Your task to perform on an android device: open a bookmark in the chrome app Image 0: 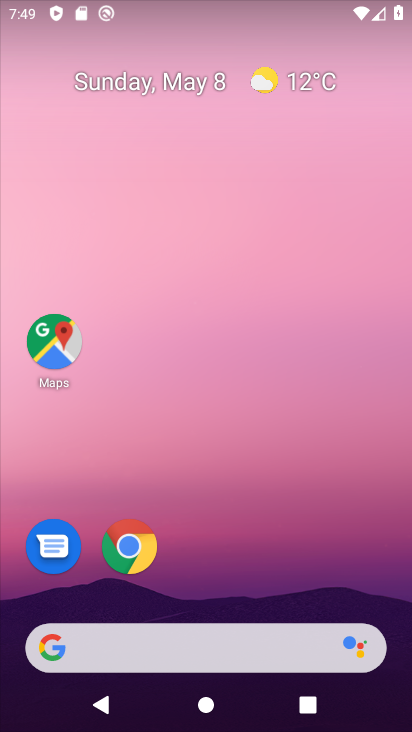
Step 0: click (134, 545)
Your task to perform on an android device: open a bookmark in the chrome app Image 1: 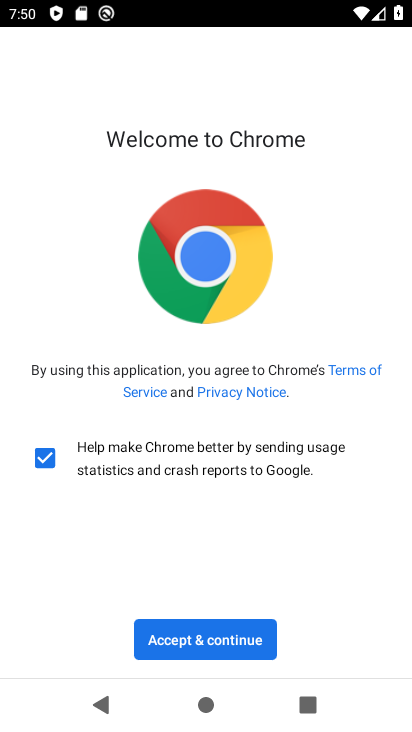
Step 1: click (209, 639)
Your task to perform on an android device: open a bookmark in the chrome app Image 2: 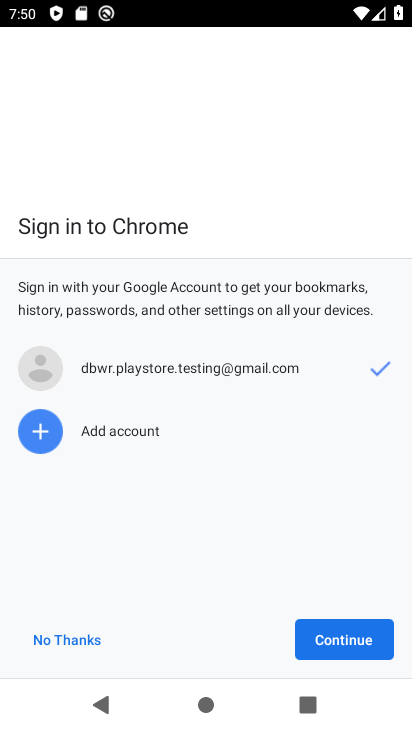
Step 2: click (306, 639)
Your task to perform on an android device: open a bookmark in the chrome app Image 3: 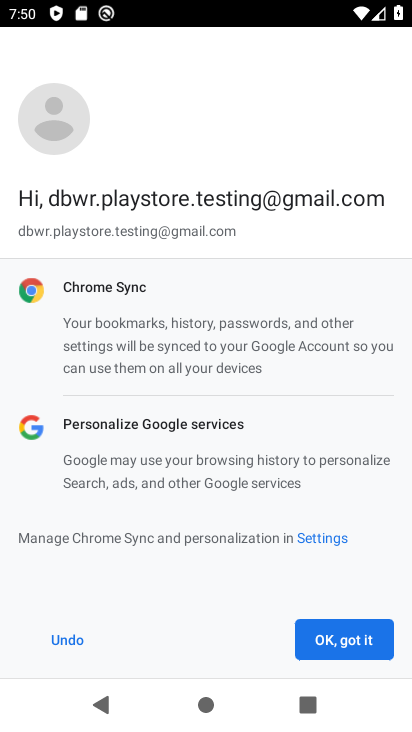
Step 3: click (321, 631)
Your task to perform on an android device: open a bookmark in the chrome app Image 4: 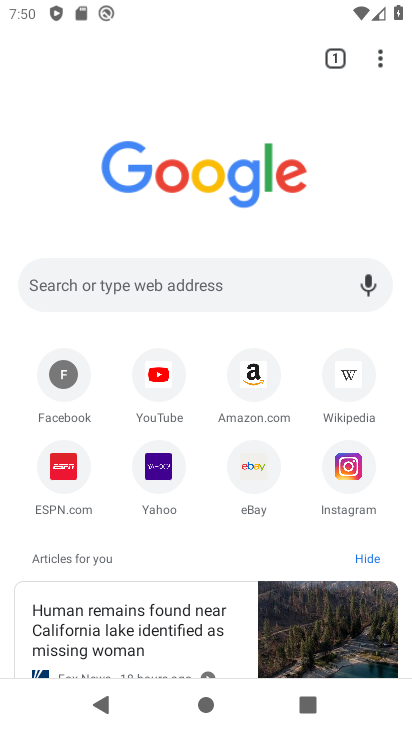
Step 4: click (379, 57)
Your task to perform on an android device: open a bookmark in the chrome app Image 5: 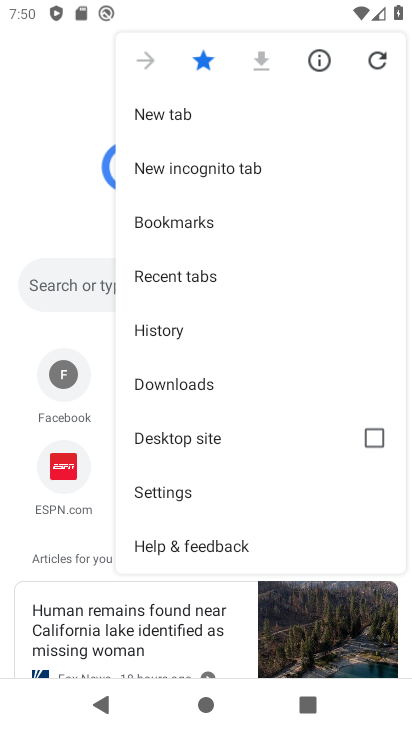
Step 5: click (176, 216)
Your task to perform on an android device: open a bookmark in the chrome app Image 6: 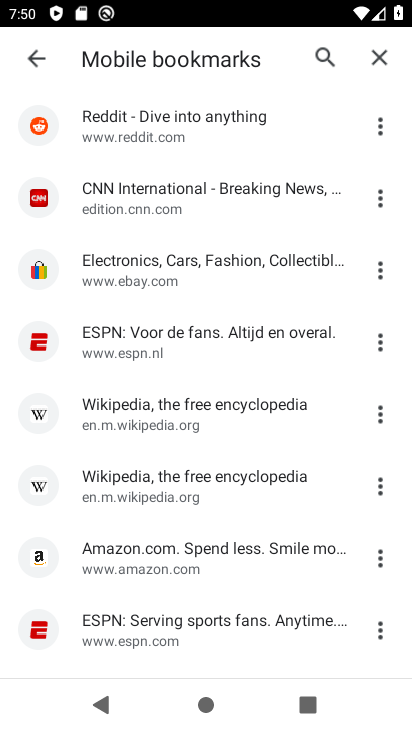
Step 6: click (171, 196)
Your task to perform on an android device: open a bookmark in the chrome app Image 7: 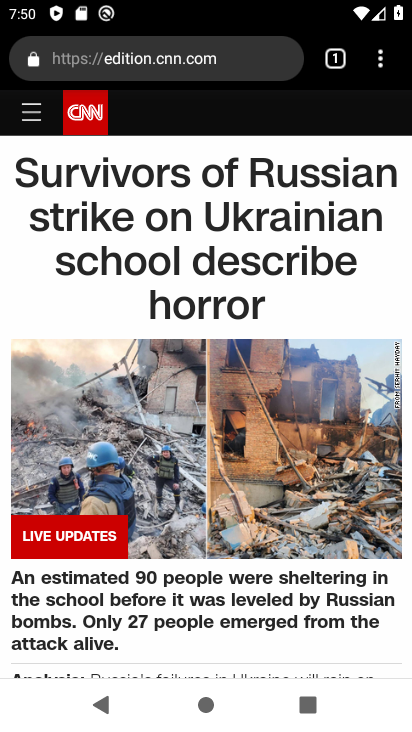
Step 7: task complete